Your task to perform on an android device: find which apps use the phone's location Image 0: 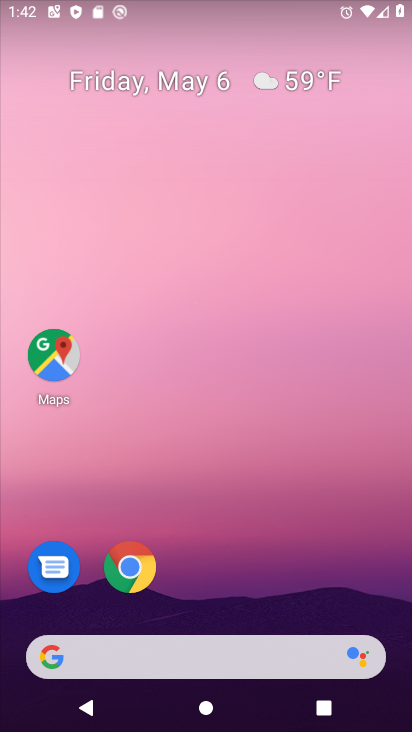
Step 0: drag from (300, 541) to (272, 91)
Your task to perform on an android device: find which apps use the phone's location Image 1: 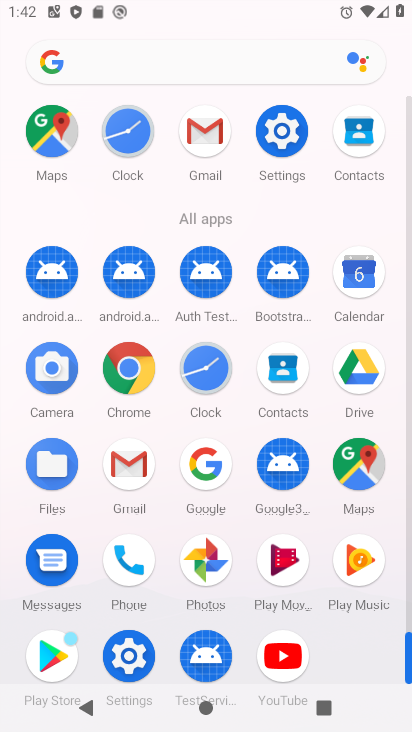
Step 1: click (132, 649)
Your task to perform on an android device: find which apps use the phone's location Image 2: 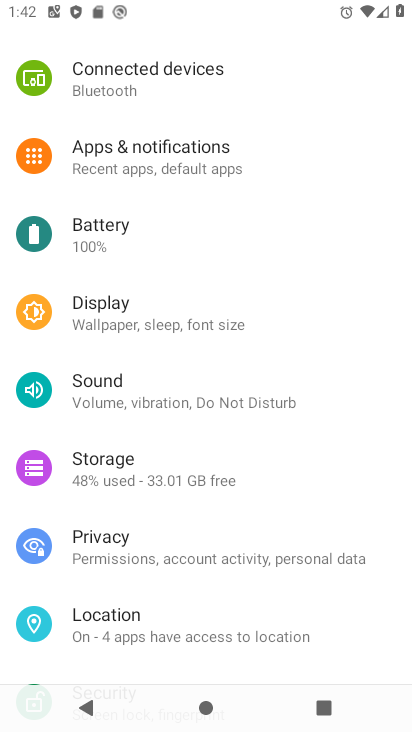
Step 2: click (210, 629)
Your task to perform on an android device: find which apps use the phone's location Image 3: 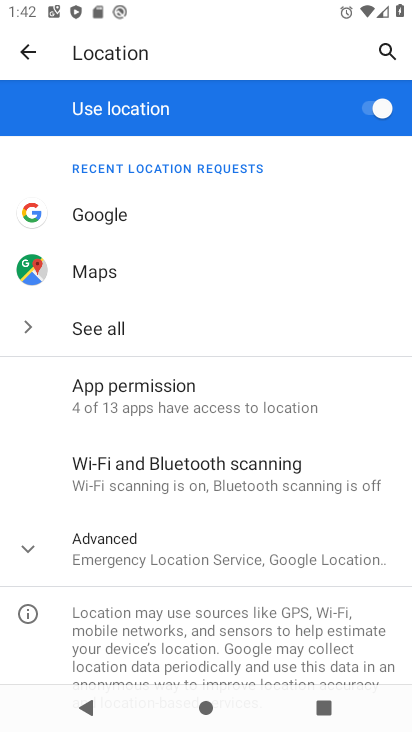
Step 3: click (119, 554)
Your task to perform on an android device: find which apps use the phone's location Image 4: 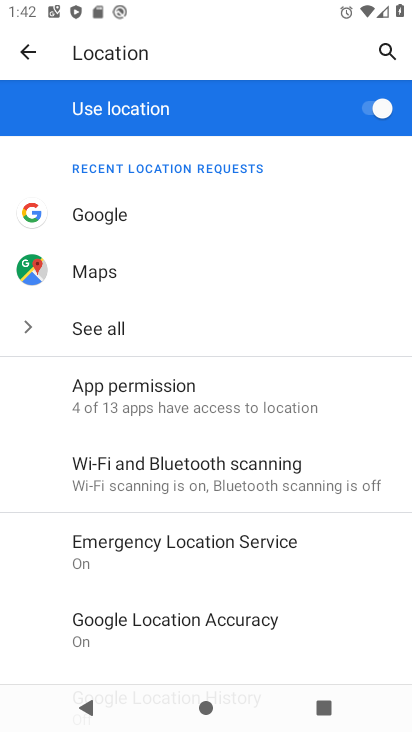
Step 4: click (114, 393)
Your task to perform on an android device: find which apps use the phone's location Image 5: 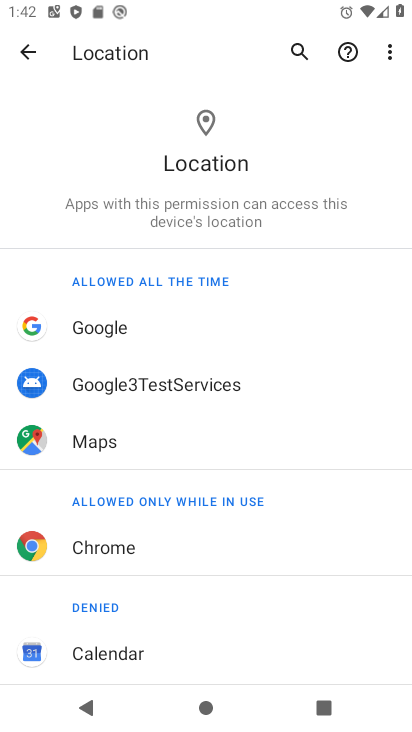
Step 5: task complete